Your task to perform on an android device: uninstall "Google Maps" Image 0: 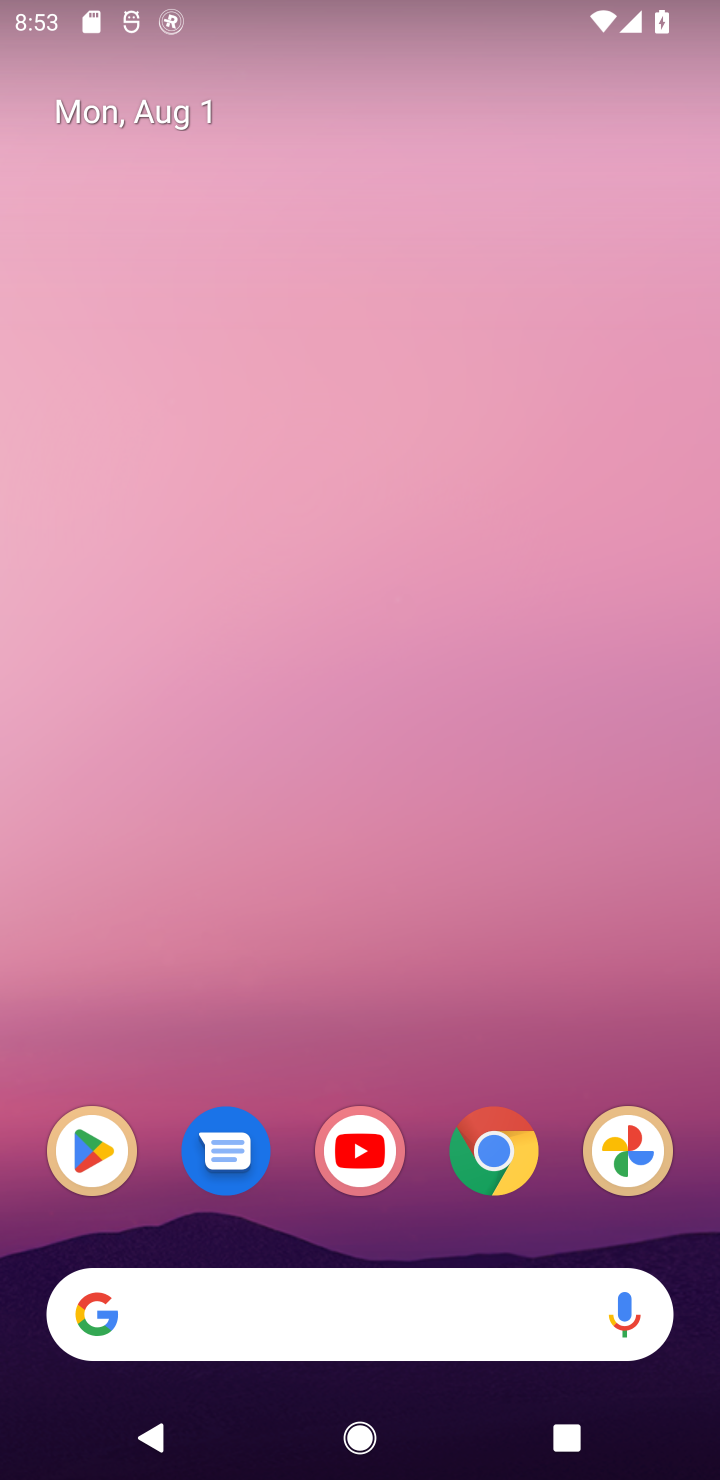
Step 0: click (82, 1123)
Your task to perform on an android device: uninstall "Google Maps" Image 1: 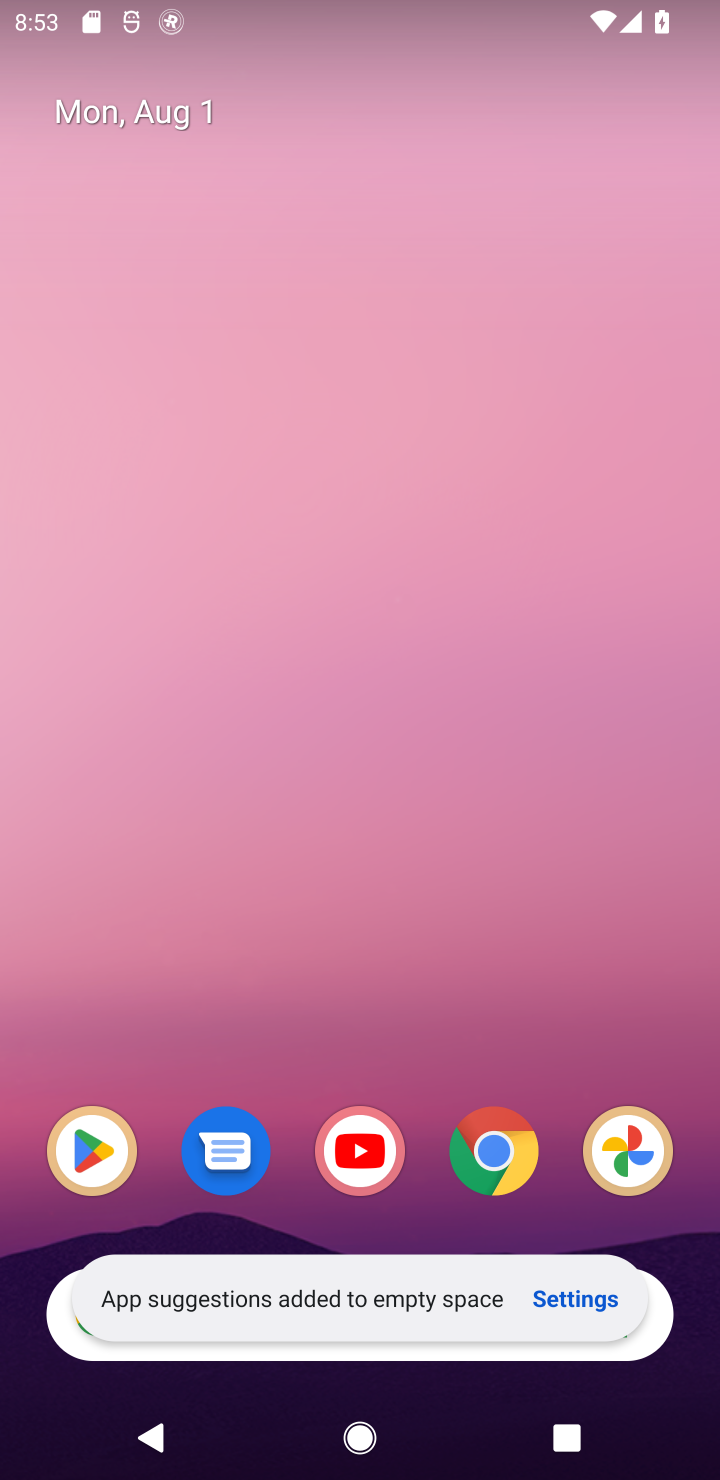
Step 1: click (69, 1136)
Your task to perform on an android device: uninstall "Google Maps" Image 2: 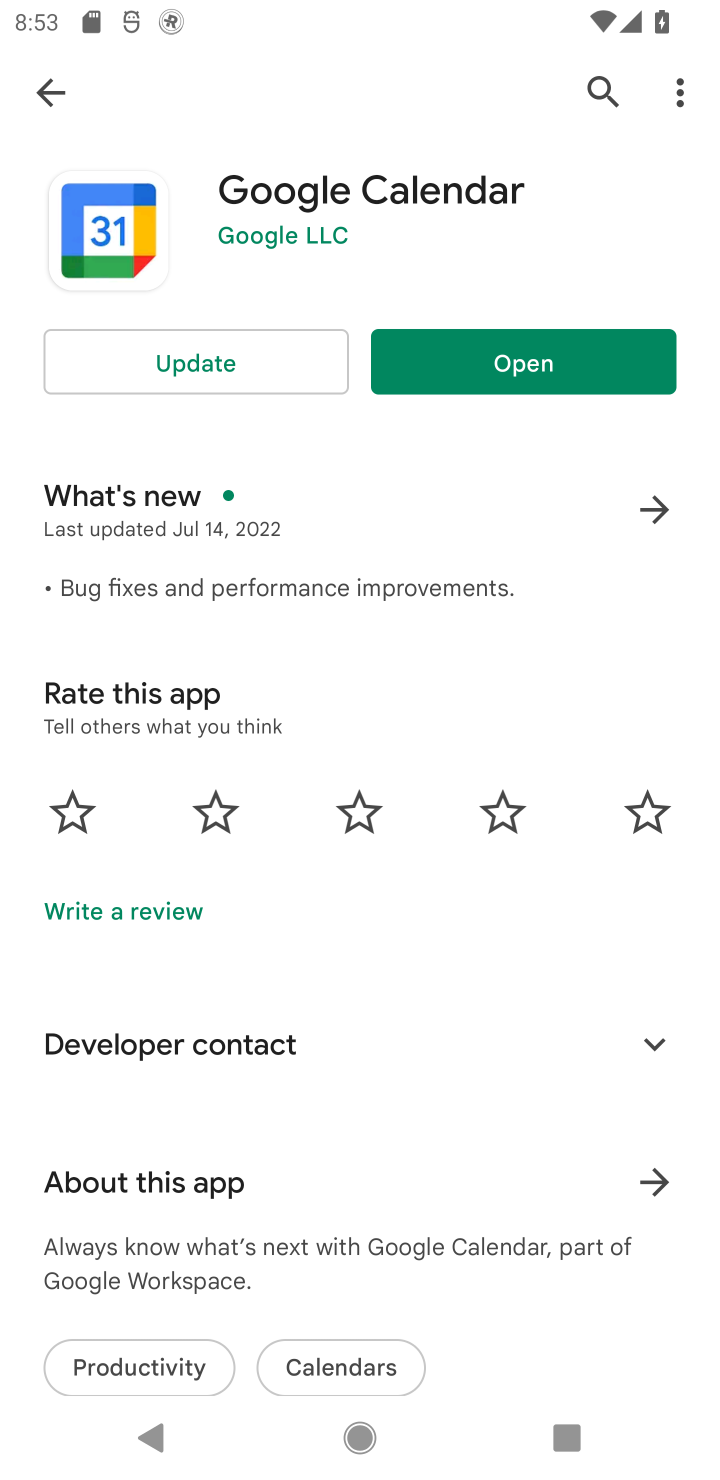
Step 2: click (594, 82)
Your task to perform on an android device: uninstall "Google Maps" Image 3: 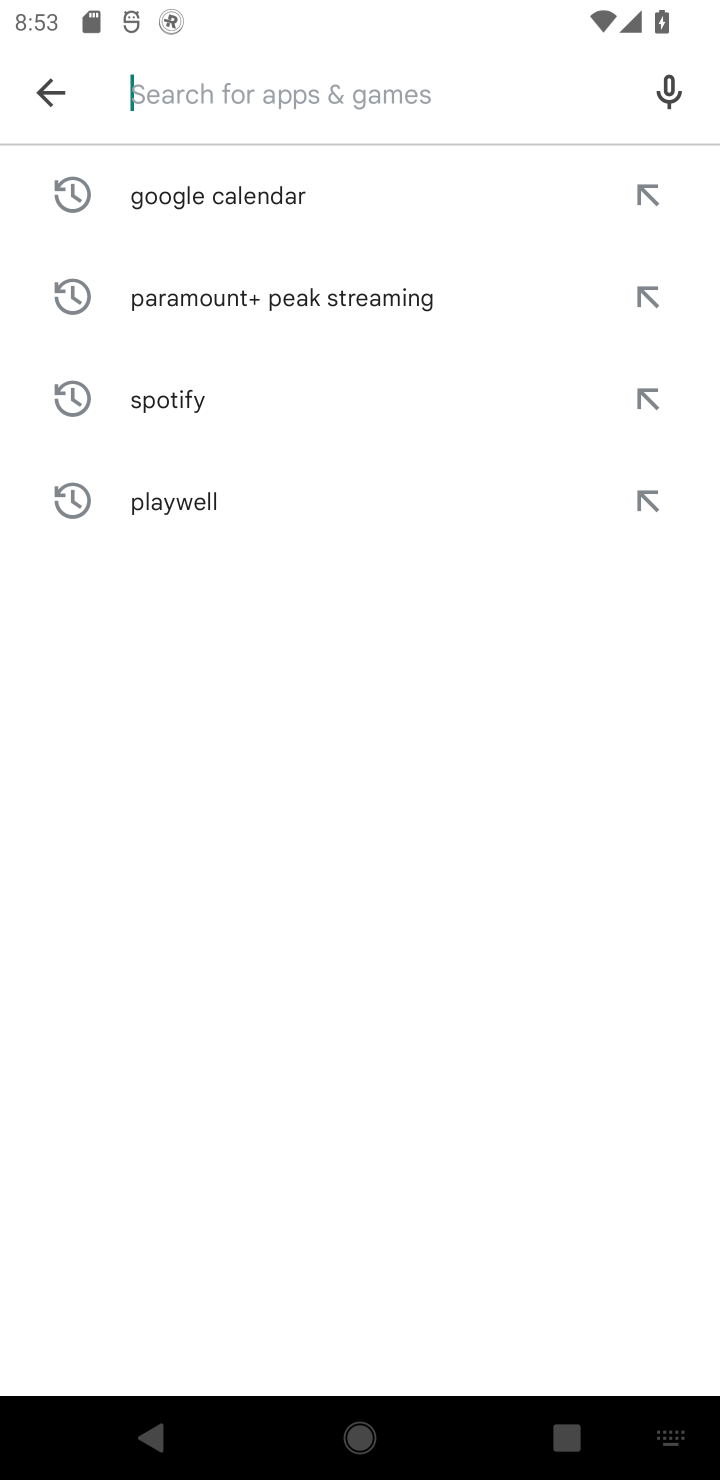
Step 3: type "Google Maps"
Your task to perform on an android device: uninstall "Google Maps" Image 4: 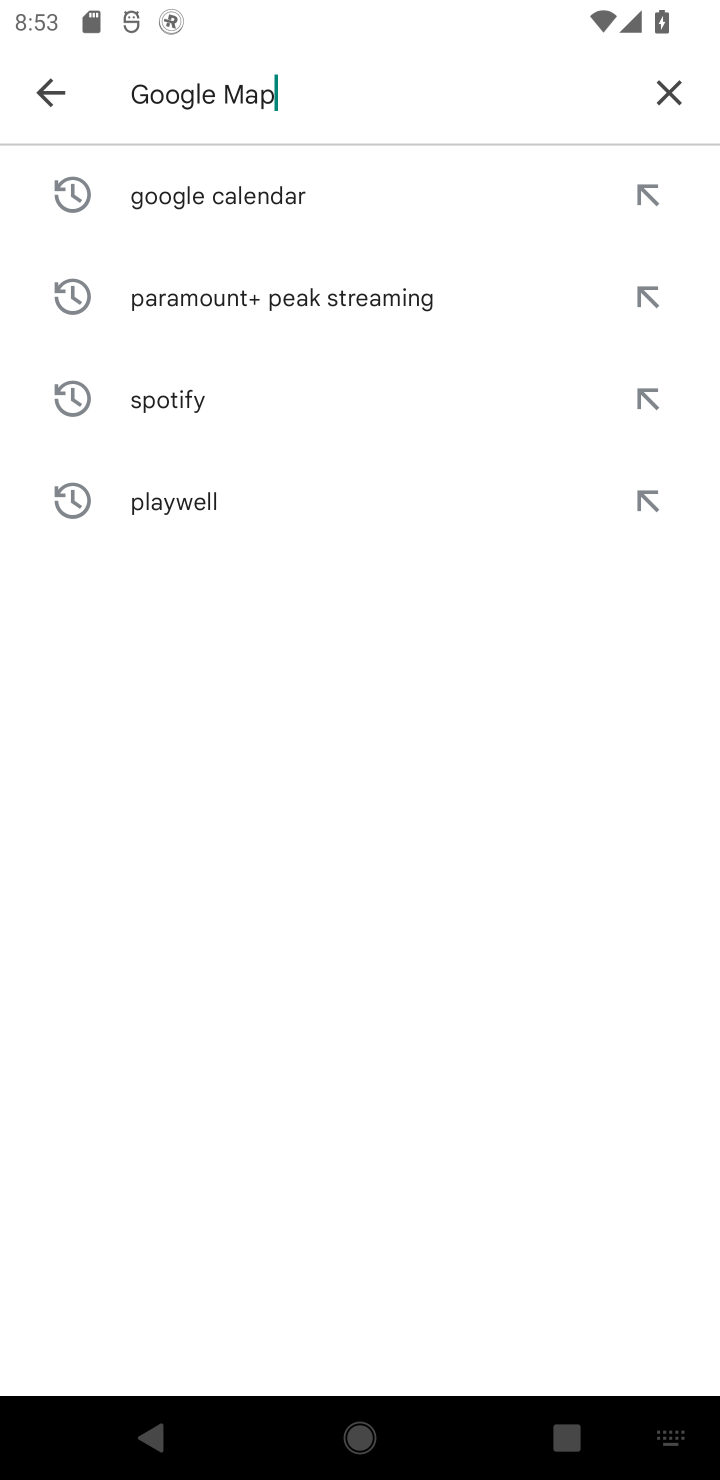
Step 4: type ""
Your task to perform on an android device: uninstall "Google Maps" Image 5: 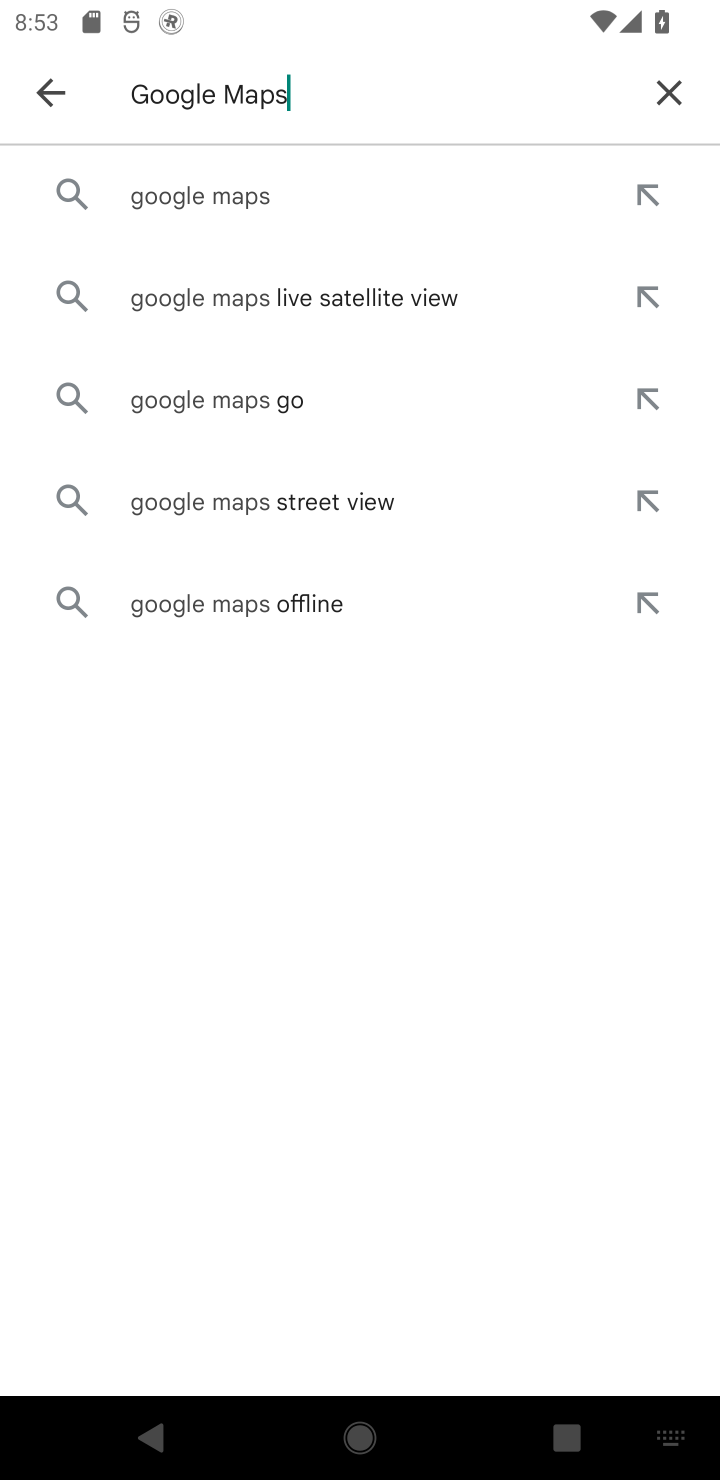
Step 5: click (283, 210)
Your task to perform on an android device: uninstall "Google Maps" Image 6: 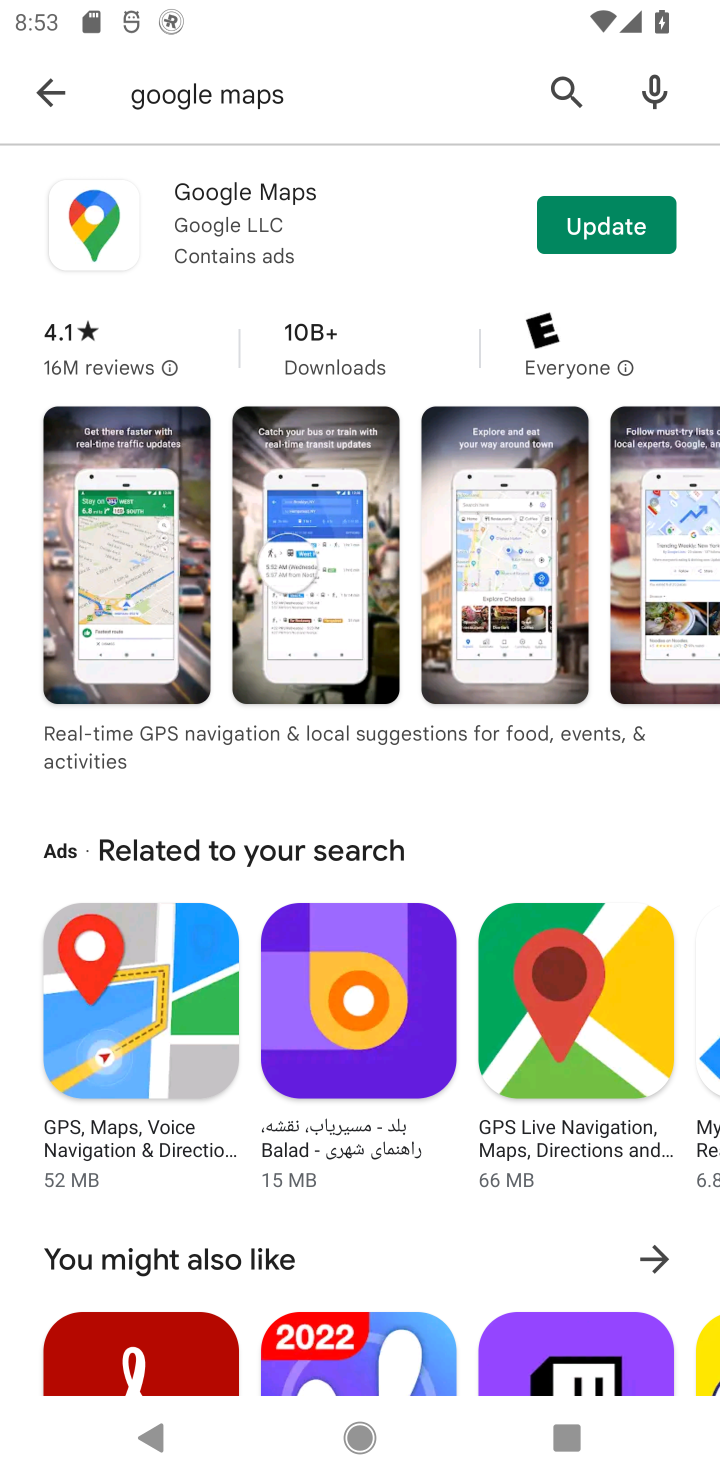
Step 6: click (310, 222)
Your task to perform on an android device: uninstall "Google Maps" Image 7: 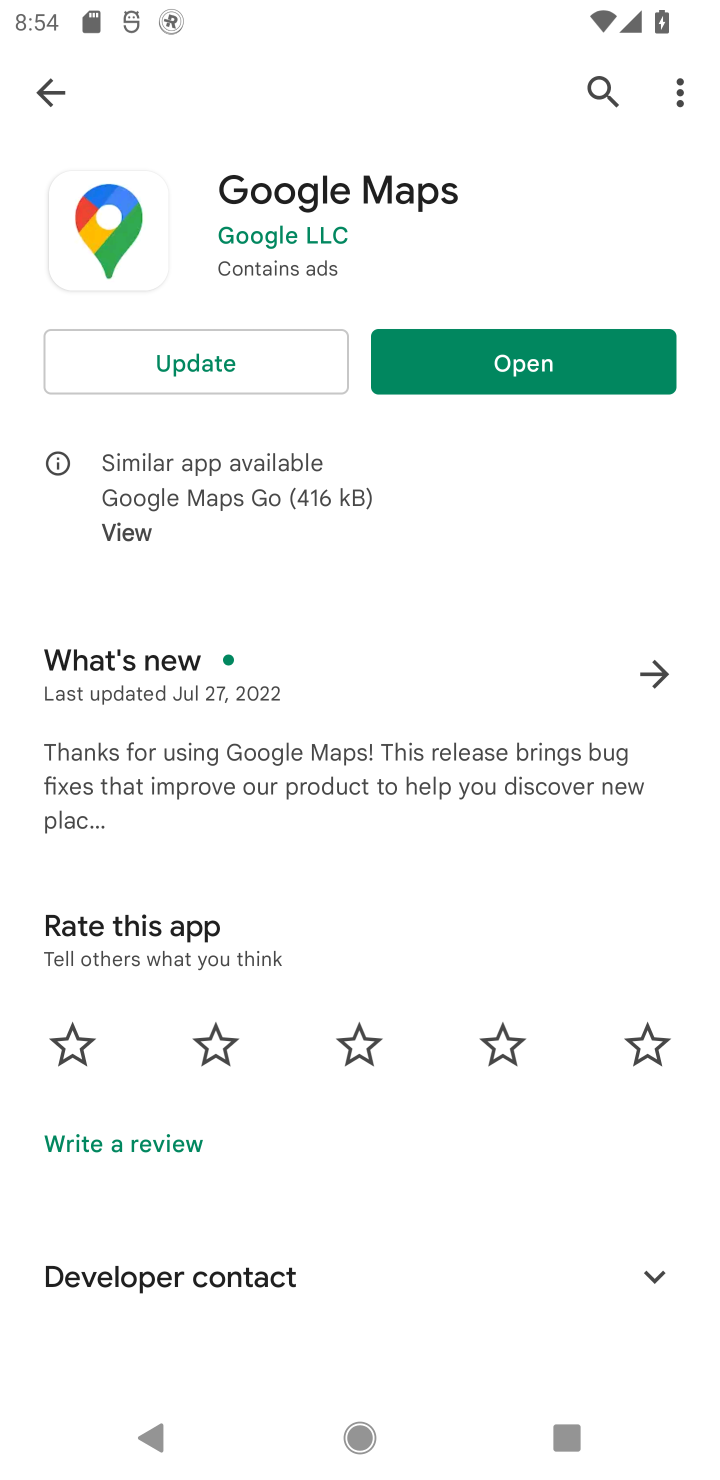
Step 7: click (206, 353)
Your task to perform on an android device: uninstall "Google Maps" Image 8: 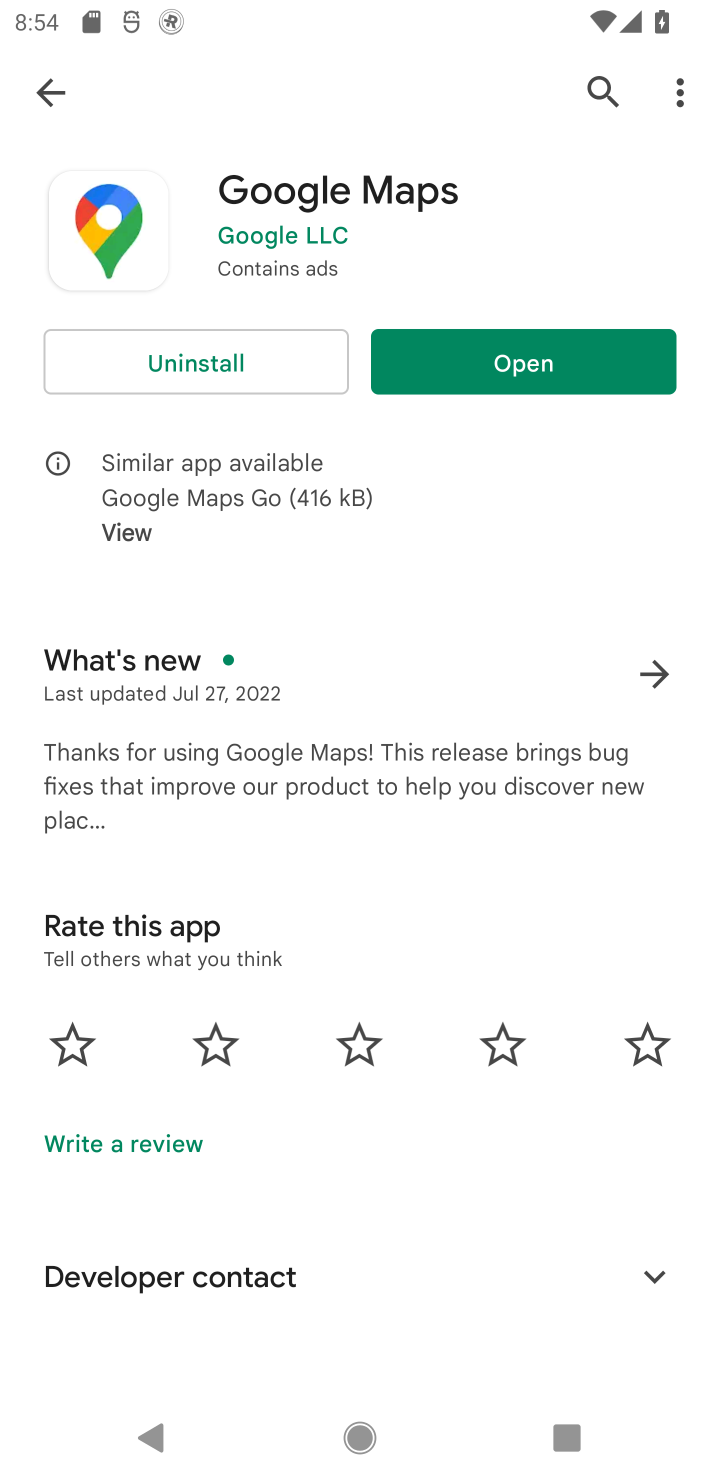
Step 8: click (250, 358)
Your task to perform on an android device: uninstall "Google Maps" Image 9: 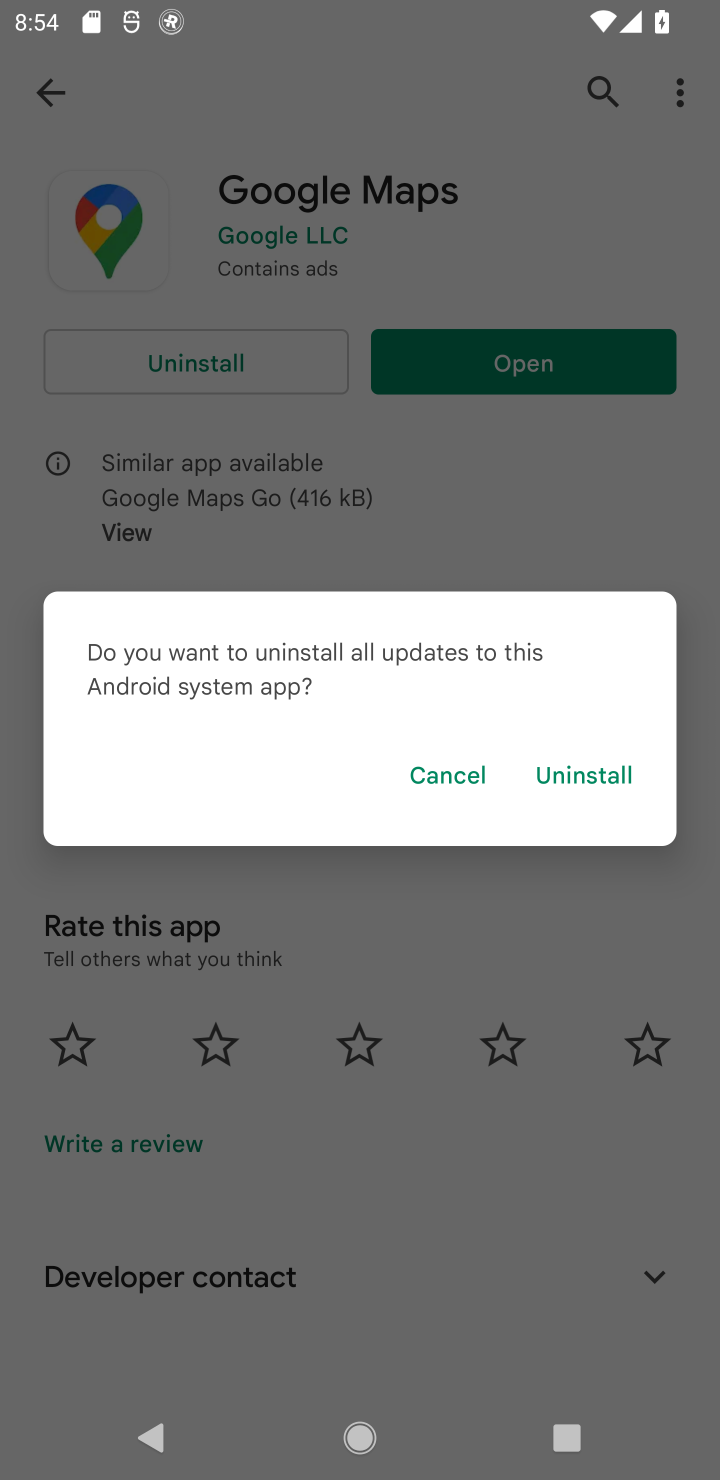
Step 9: click (586, 790)
Your task to perform on an android device: uninstall "Google Maps" Image 10: 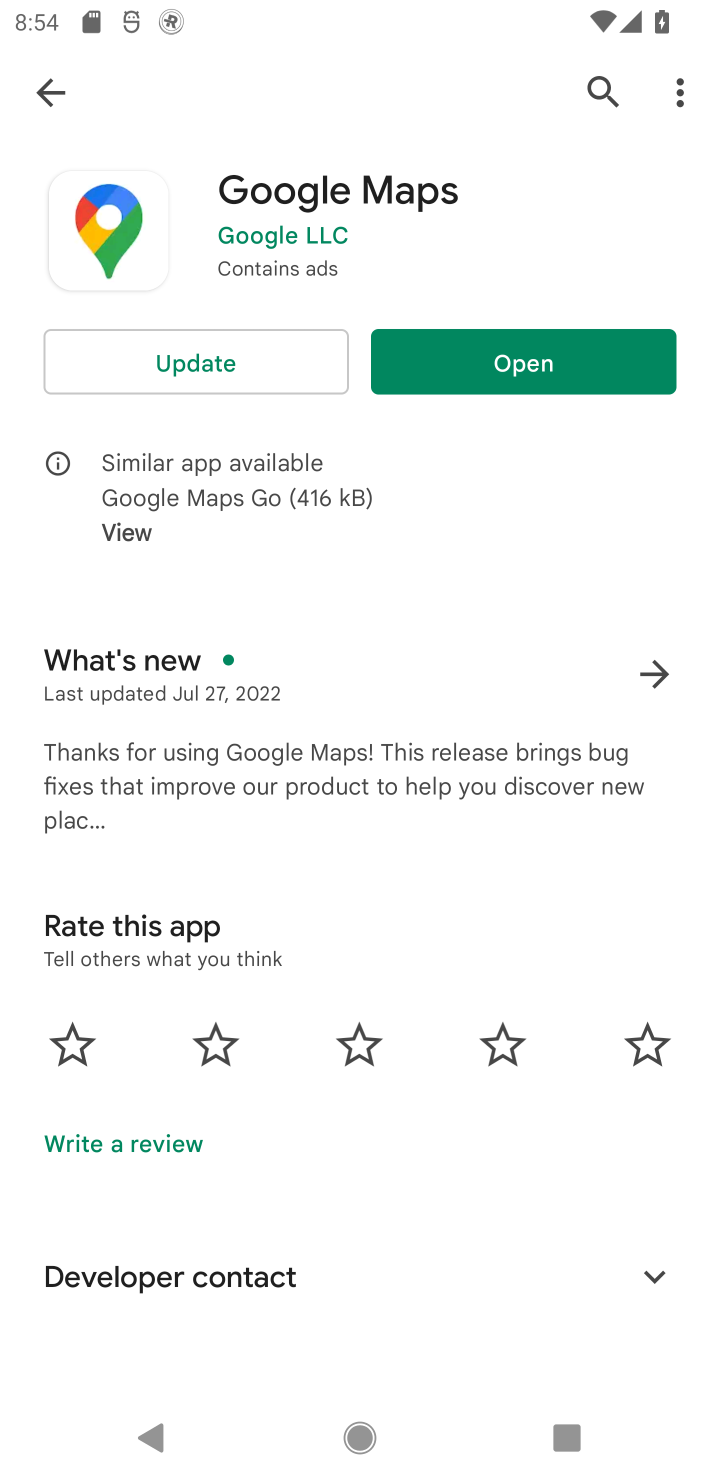
Step 10: task complete